Your task to perform on an android device: turn notification dots on Image 0: 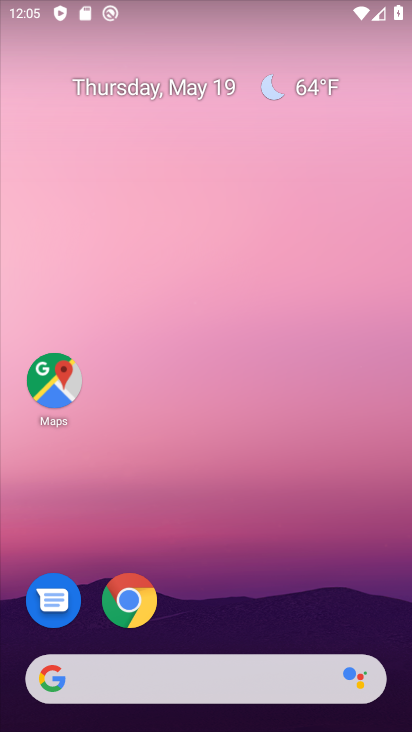
Step 0: drag from (189, 640) to (86, 96)
Your task to perform on an android device: turn notification dots on Image 1: 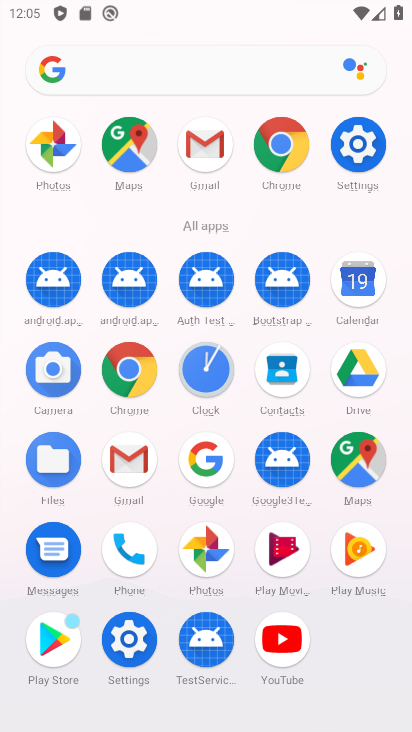
Step 1: click (365, 147)
Your task to perform on an android device: turn notification dots on Image 2: 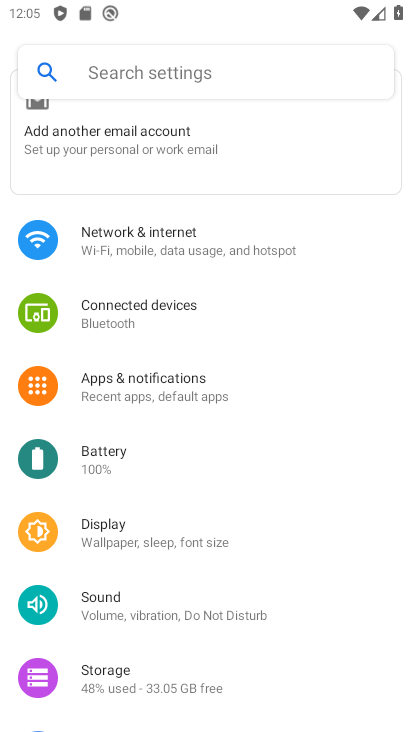
Step 2: click (165, 375)
Your task to perform on an android device: turn notification dots on Image 3: 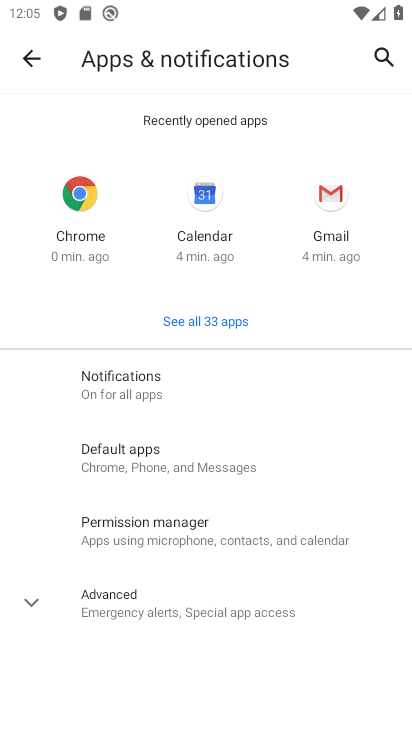
Step 3: click (140, 387)
Your task to perform on an android device: turn notification dots on Image 4: 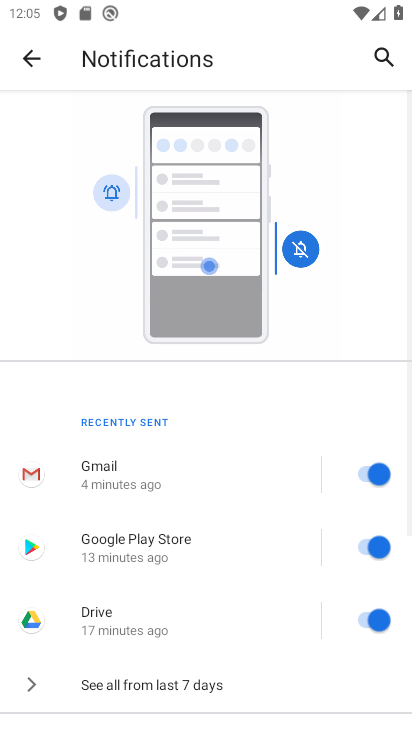
Step 4: drag from (307, 700) to (278, 288)
Your task to perform on an android device: turn notification dots on Image 5: 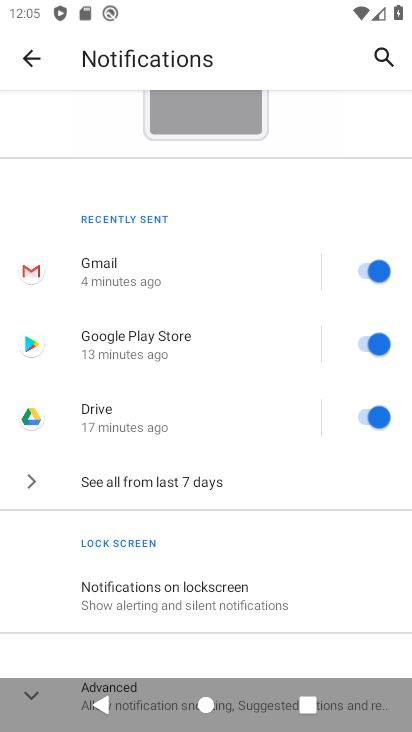
Step 5: click (258, 657)
Your task to perform on an android device: turn notification dots on Image 6: 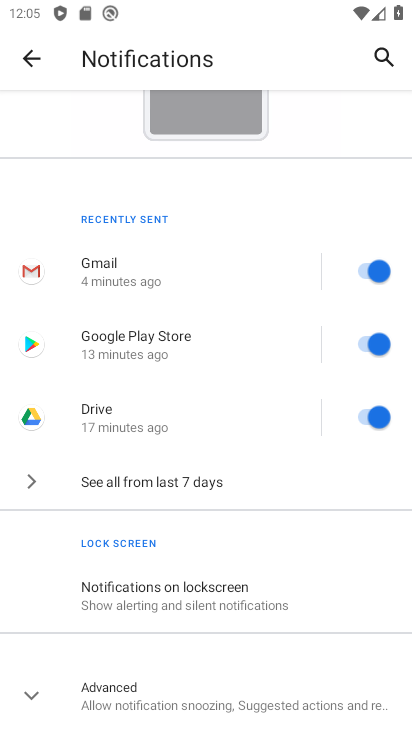
Step 6: drag from (257, 656) to (195, 199)
Your task to perform on an android device: turn notification dots on Image 7: 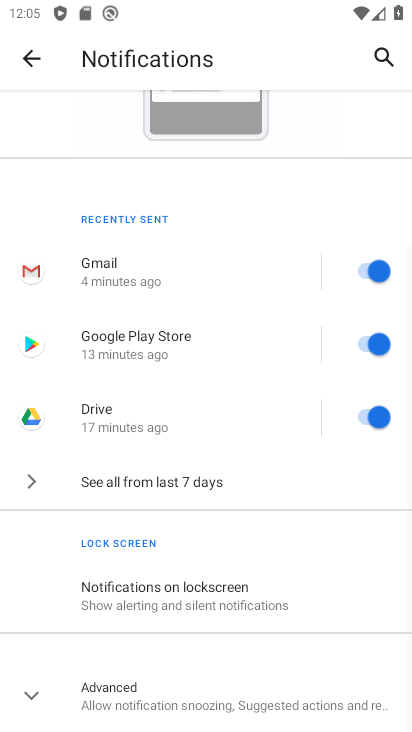
Step 7: click (107, 694)
Your task to perform on an android device: turn notification dots on Image 8: 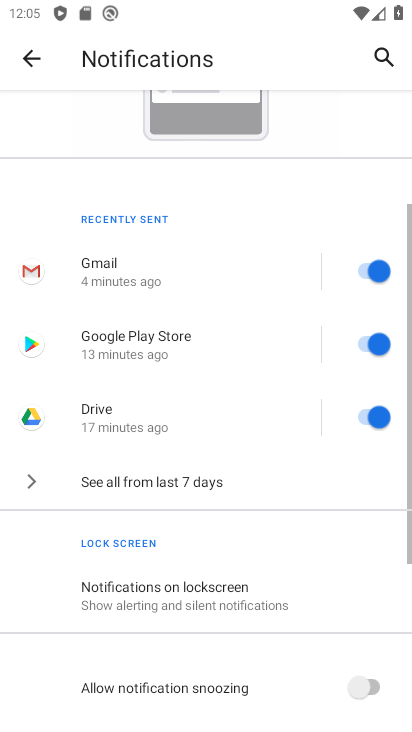
Step 8: task complete